Your task to perform on an android device: Do I have any events today? Image 0: 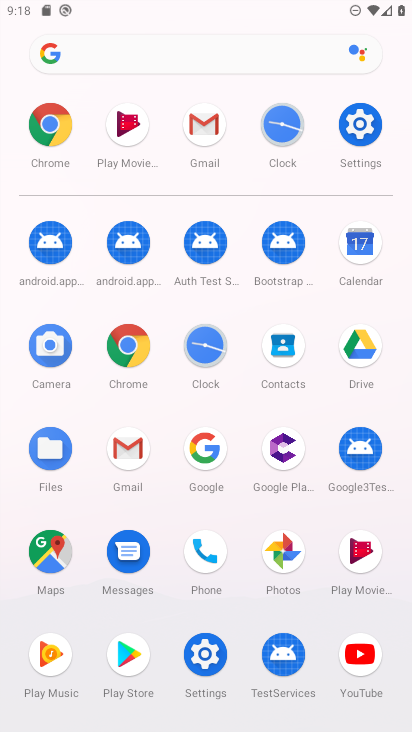
Step 0: press home button
Your task to perform on an android device: Do I have any events today? Image 1: 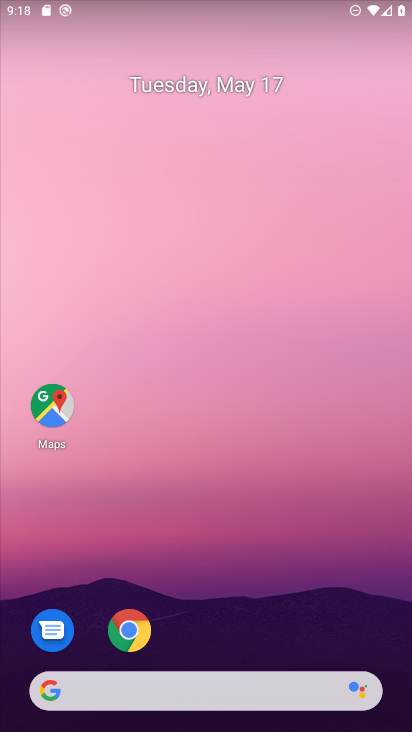
Step 1: drag from (355, 424) to (356, 129)
Your task to perform on an android device: Do I have any events today? Image 2: 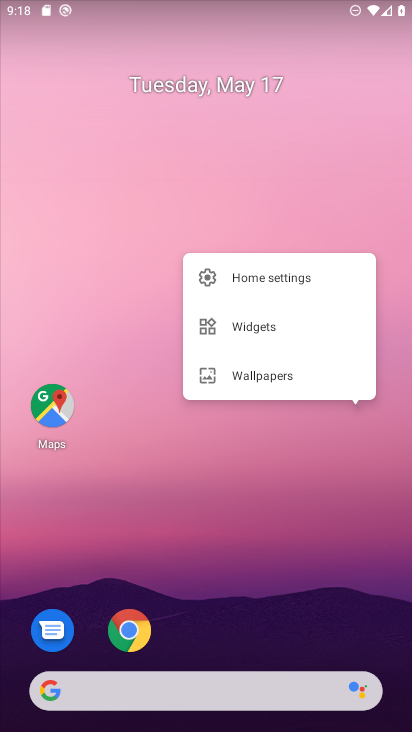
Step 2: click (356, 126)
Your task to perform on an android device: Do I have any events today? Image 3: 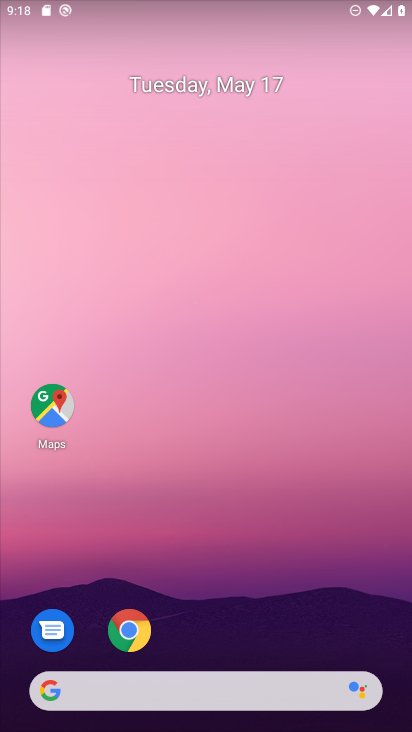
Step 3: drag from (344, 621) to (347, 187)
Your task to perform on an android device: Do I have any events today? Image 4: 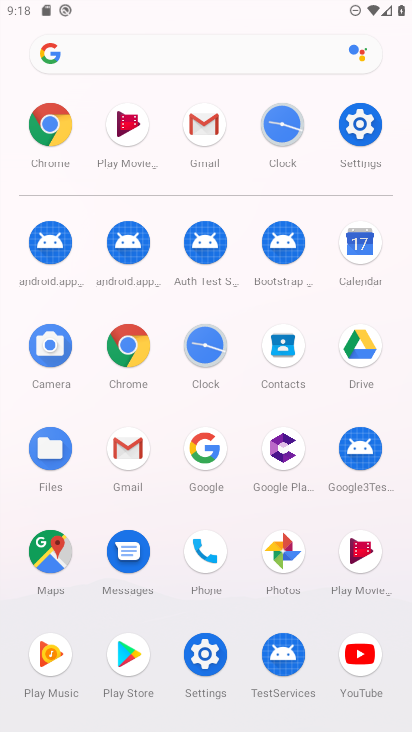
Step 4: click (354, 244)
Your task to perform on an android device: Do I have any events today? Image 5: 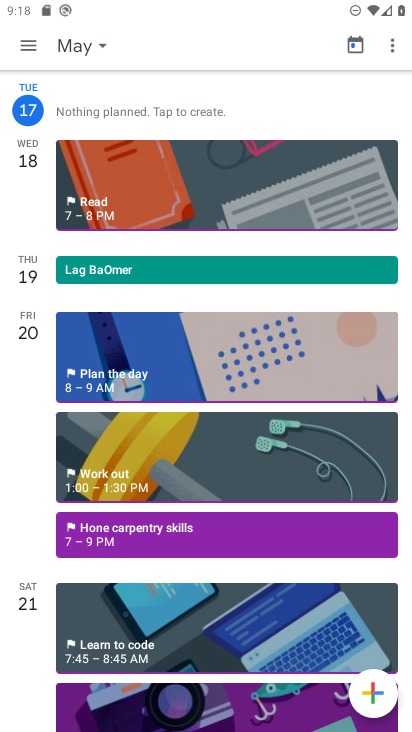
Step 5: click (144, 174)
Your task to perform on an android device: Do I have any events today? Image 6: 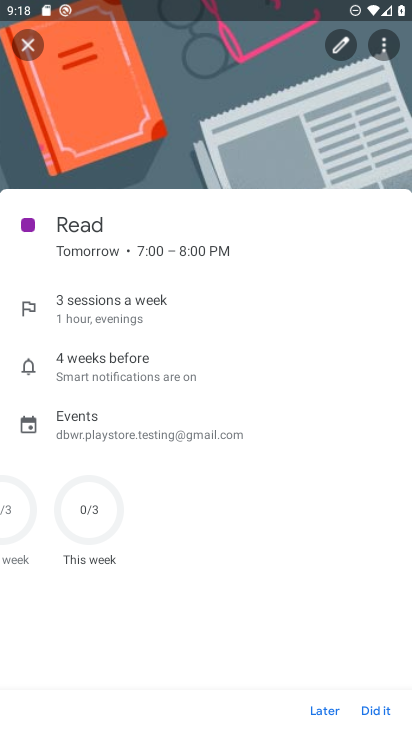
Step 6: task complete